Your task to perform on an android device: Go to calendar. Show me events next week Image 0: 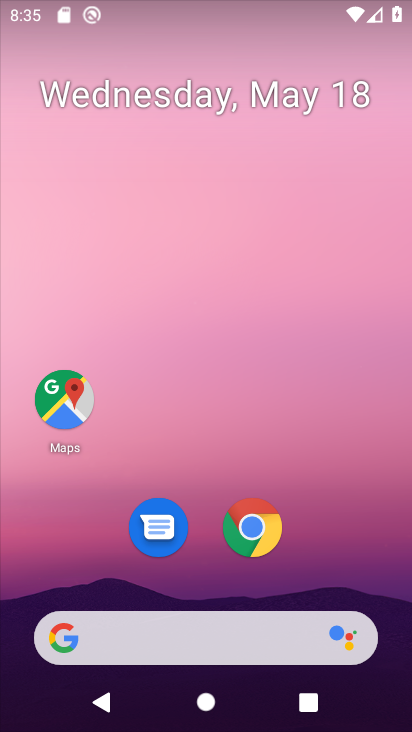
Step 0: drag from (265, 578) to (249, 6)
Your task to perform on an android device: Go to calendar. Show me events next week Image 1: 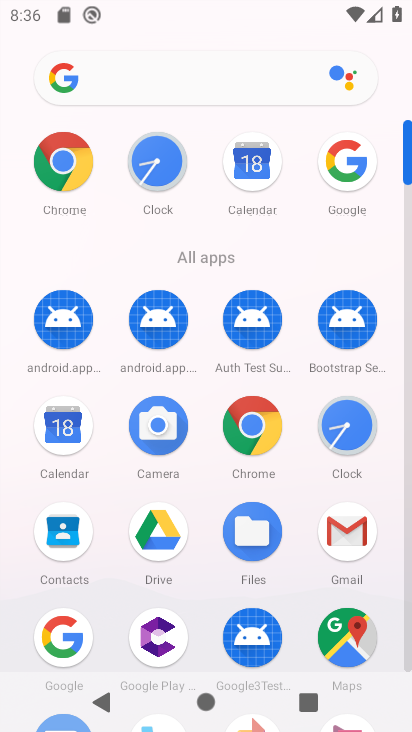
Step 1: click (61, 440)
Your task to perform on an android device: Go to calendar. Show me events next week Image 2: 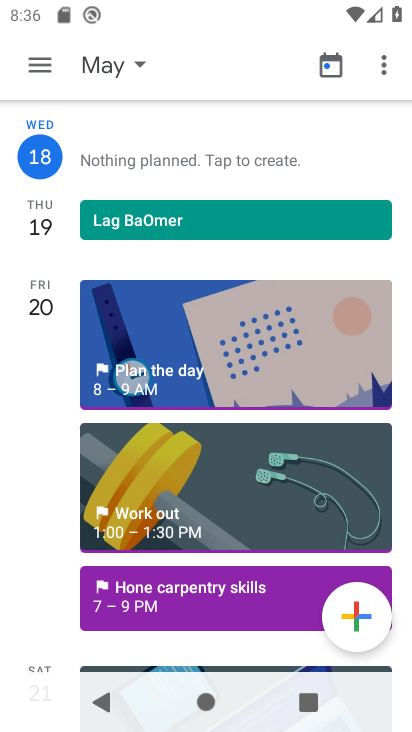
Step 2: click (36, 68)
Your task to perform on an android device: Go to calendar. Show me events next week Image 3: 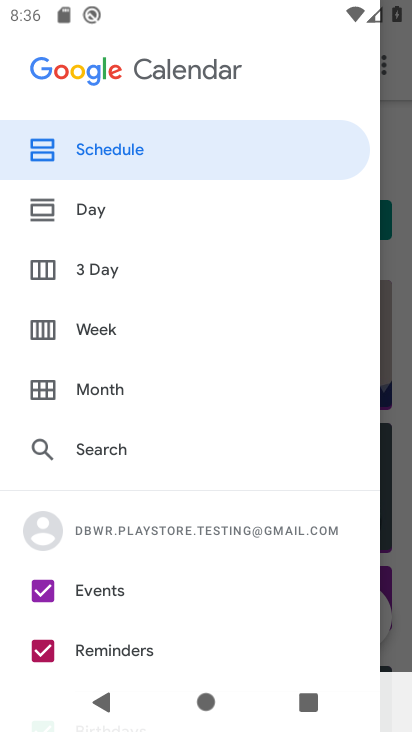
Step 3: click (126, 330)
Your task to perform on an android device: Go to calendar. Show me events next week Image 4: 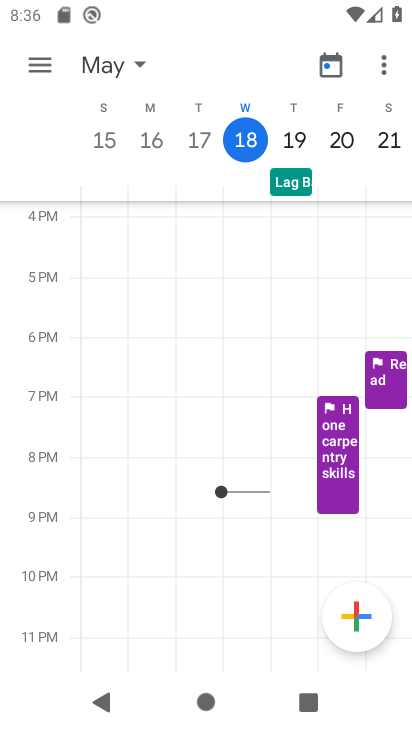
Step 4: click (100, 64)
Your task to perform on an android device: Go to calendar. Show me events next week Image 5: 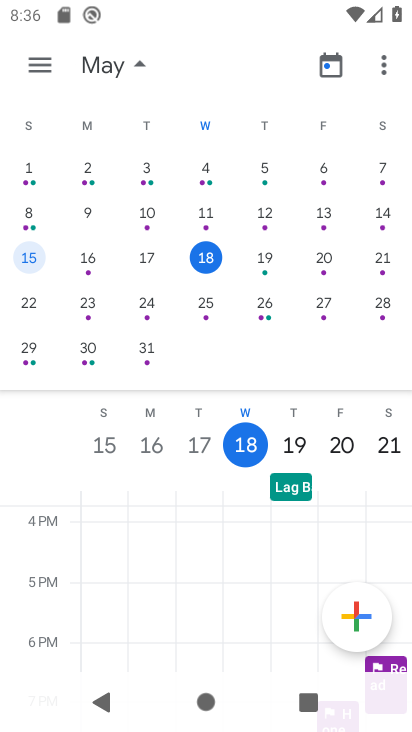
Step 5: click (35, 300)
Your task to perform on an android device: Go to calendar. Show me events next week Image 6: 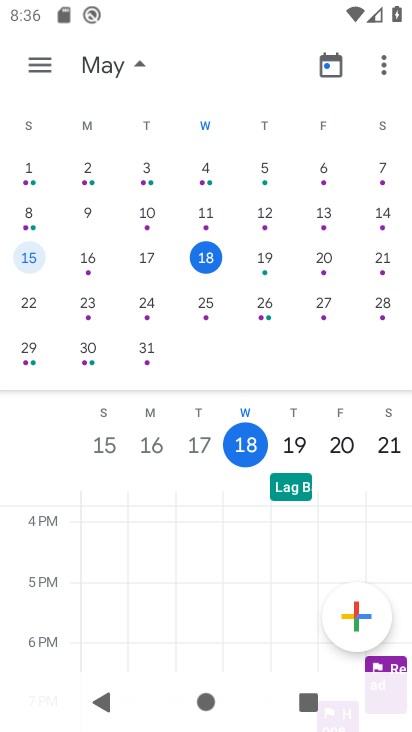
Step 6: click (35, 304)
Your task to perform on an android device: Go to calendar. Show me events next week Image 7: 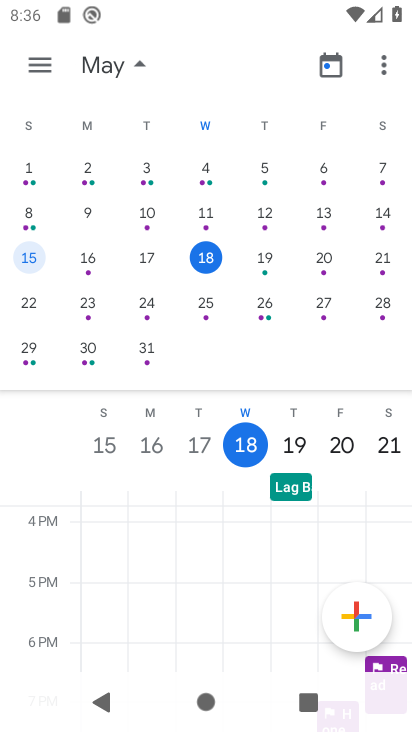
Step 7: click (35, 304)
Your task to perform on an android device: Go to calendar. Show me events next week Image 8: 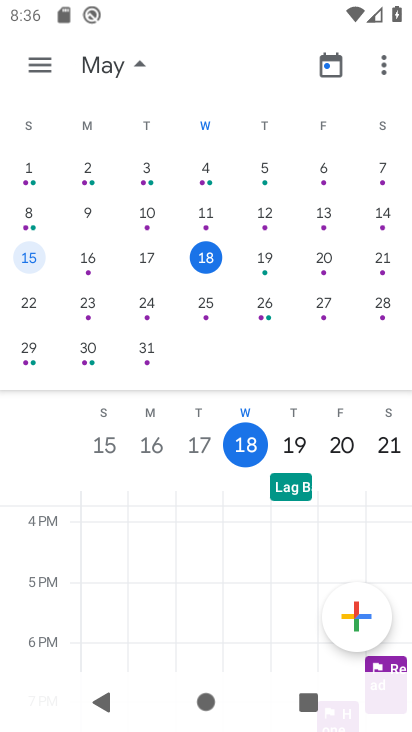
Step 8: click (35, 304)
Your task to perform on an android device: Go to calendar. Show me events next week Image 9: 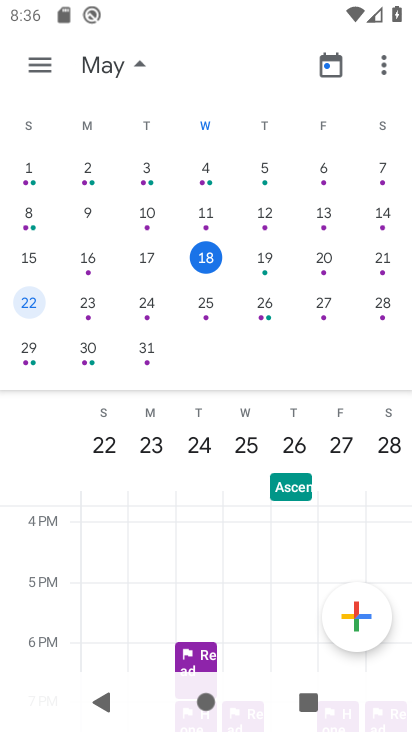
Step 9: task complete